Your task to perform on an android device: star an email in the gmail app Image 0: 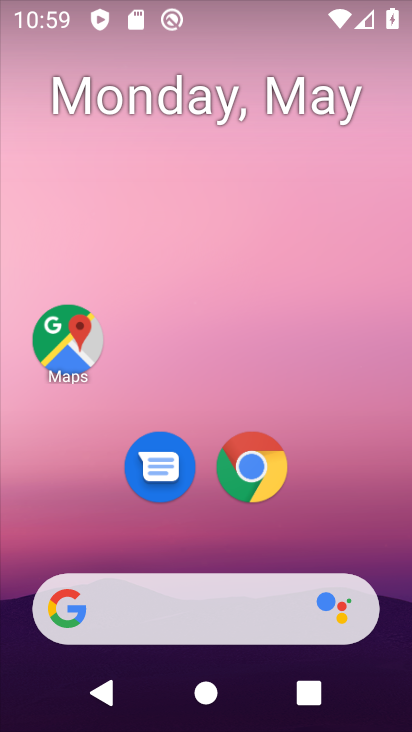
Step 0: drag from (360, 527) to (362, 133)
Your task to perform on an android device: star an email in the gmail app Image 1: 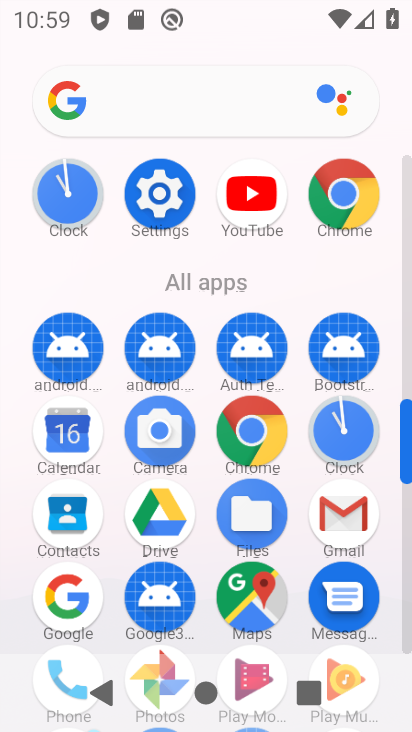
Step 1: click (329, 516)
Your task to perform on an android device: star an email in the gmail app Image 2: 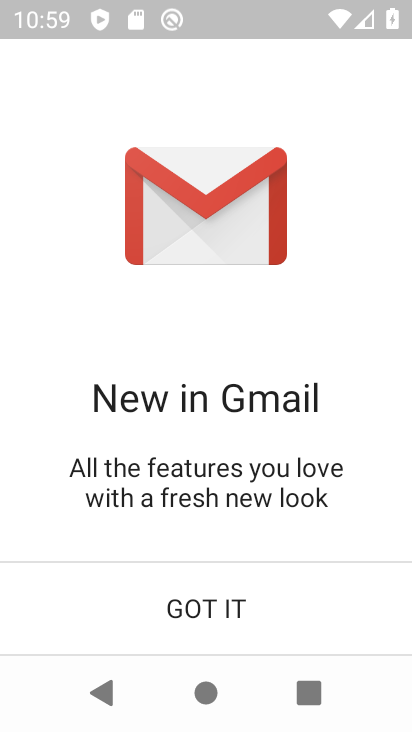
Step 2: click (225, 608)
Your task to perform on an android device: star an email in the gmail app Image 3: 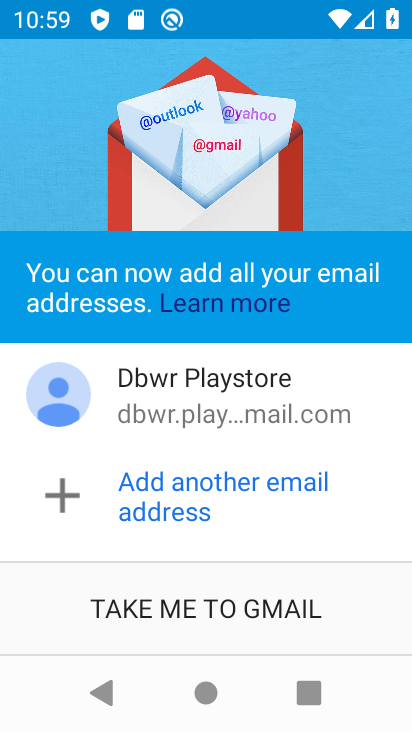
Step 3: click (225, 608)
Your task to perform on an android device: star an email in the gmail app Image 4: 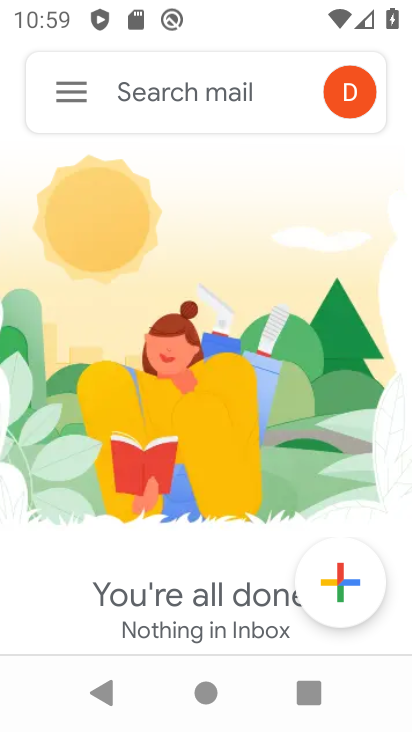
Step 4: click (84, 86)
Your task to perform on an android device: star an email in the gmail app Image 5: 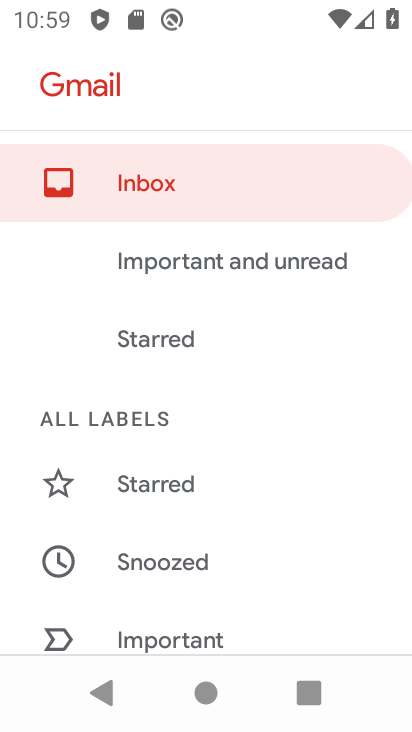
Step 5: drag from (202, 552) to (257, 224)
Your task to perform on an android device: star an email in the gmail app Image 6: 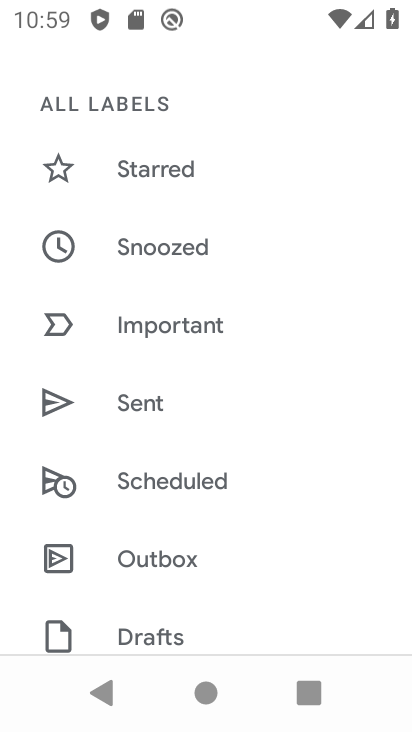
Step 6: drag from (209, 630) to (237, 373)
Your task to perform on an android device: star an email in the gmail app Image 7: 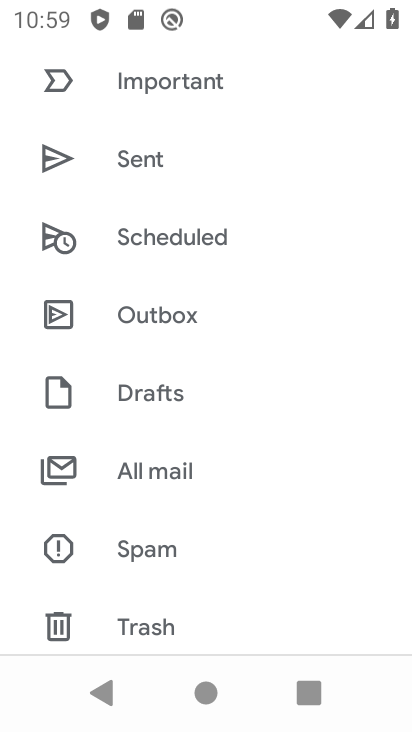
Step 7: click (209, 474)
Your task to perform on an android device: star an email in the gmail app Image 8: 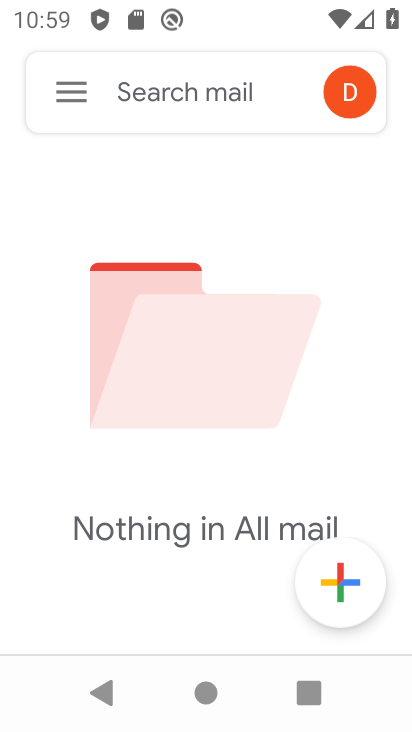
Step 8: task complete